Your task to perform on an android device: find photos in the google photos app Image 0: 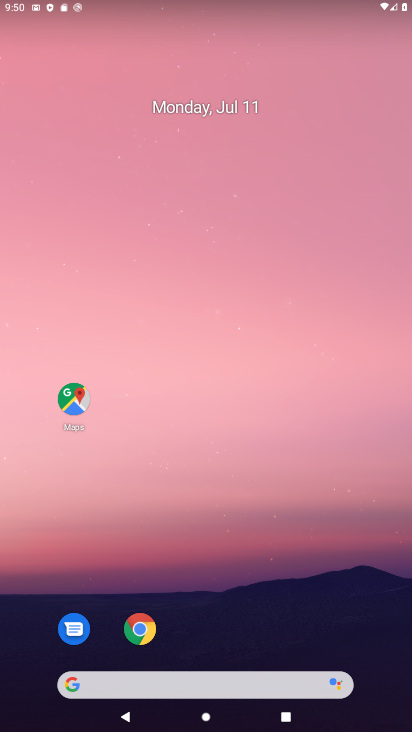
Step 0: drag from (208, 629) to (220, 167)
Your task to perform on an android device: find photos in the google photos app Image 1: 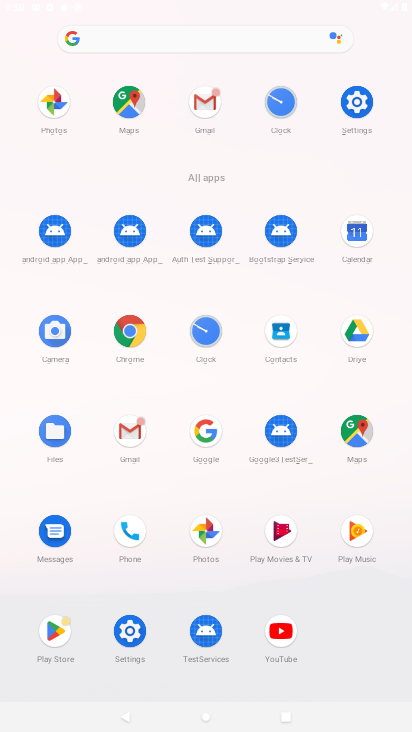
Step 1: click (58, 113)
Your task to perform on an android device: find photos in the google photos app Image 2: 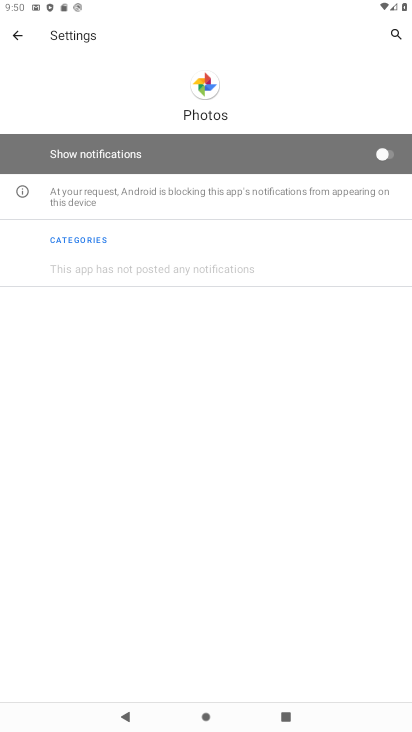
Step 2: click (13, 32)
Your task to perform on an android device: find photos in the google photos app Image 3: 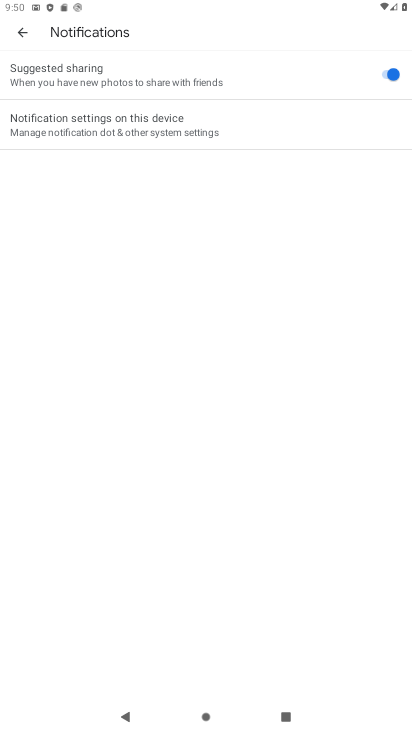
Step 3: click (18, 37)
Your task to perform on an android device: find photos in the google photos app Image 4: 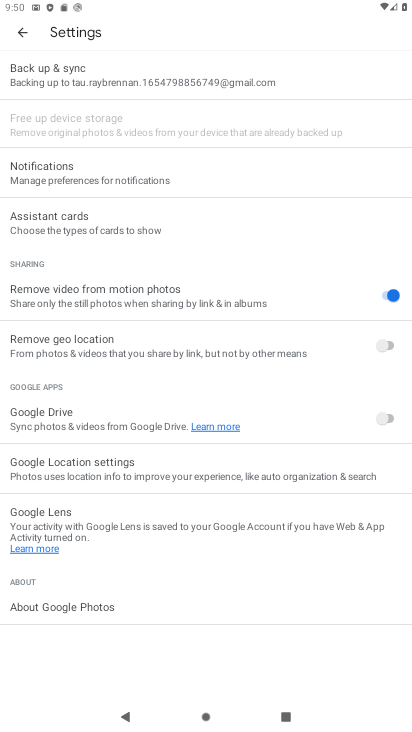
Step 4: click (22, 38)
Your task to perform on an android device: find photos in the google photos app Image 5: 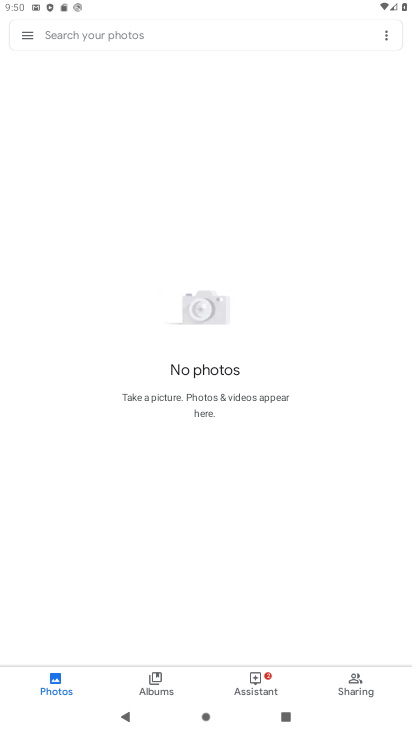
Step 5: click (183, 46)
Your task to perform on an android device: find photos in the google photos app Image 6: 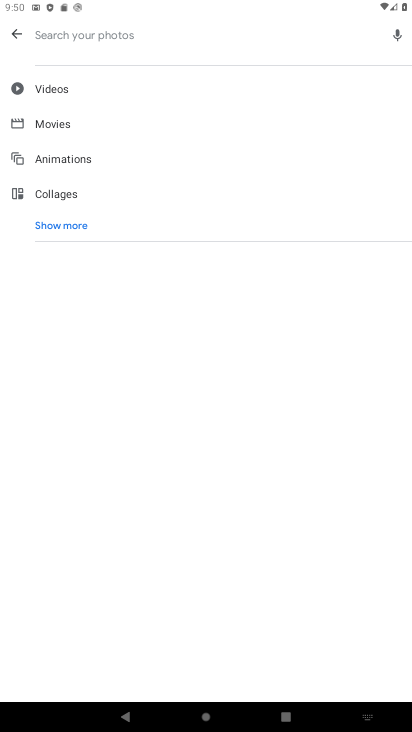
Step 6: type "aa"
Your task to perform on an android device: find photos in the google photos app Image 7: 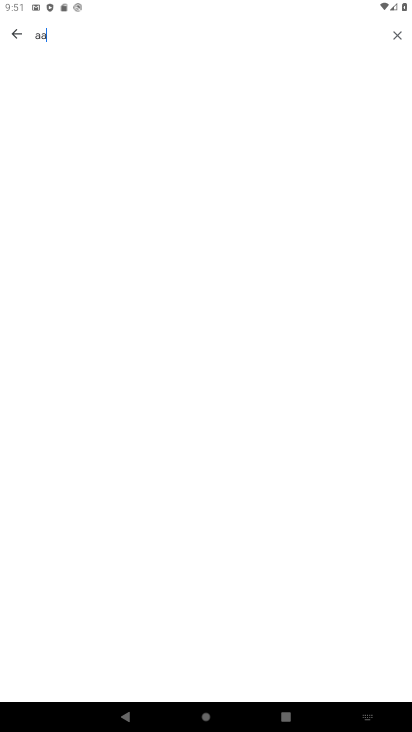
Step 7: task complete